Your task to perform on an android device: turn on the 24-hour format for clock Image 0: 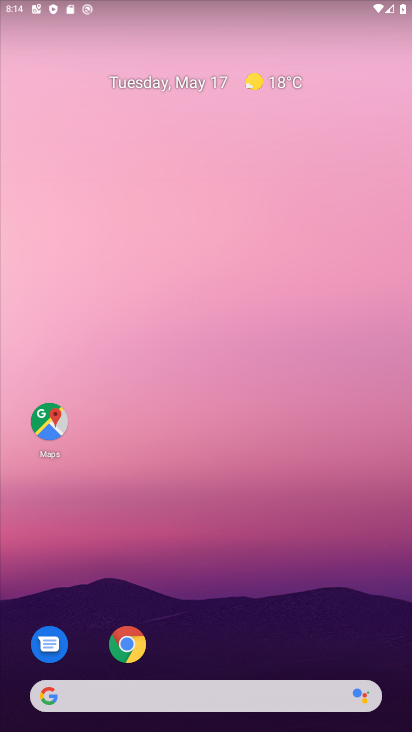
Step 0: click (289, 56)
Your task to perform on an android device: turn on the 24-hour format for clock Image 1: 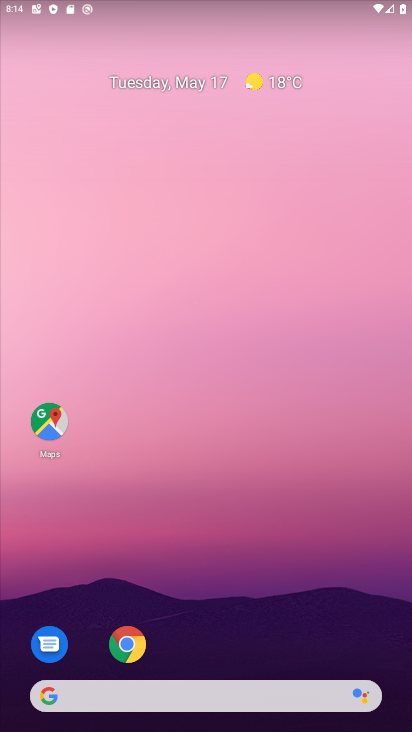
Step 1: drag from (205, 607) to (260, 22)
Your task to perform on an android device: turn on the 24-hour format for clock Image 2: 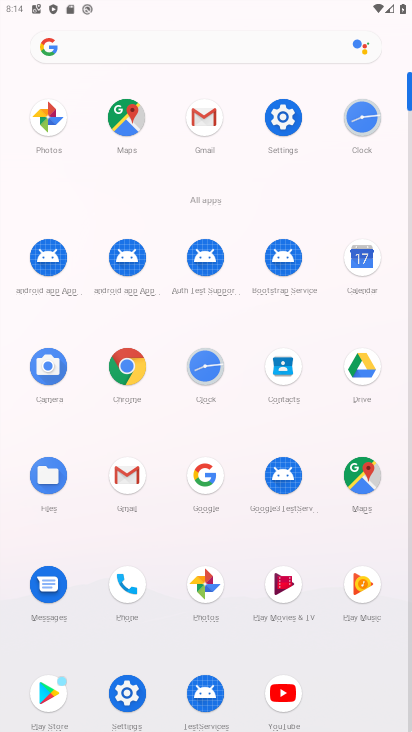
Step 2: click (209, 371)
Your task to perform on an android device: turn on the 24-hour format for clock Image 3: 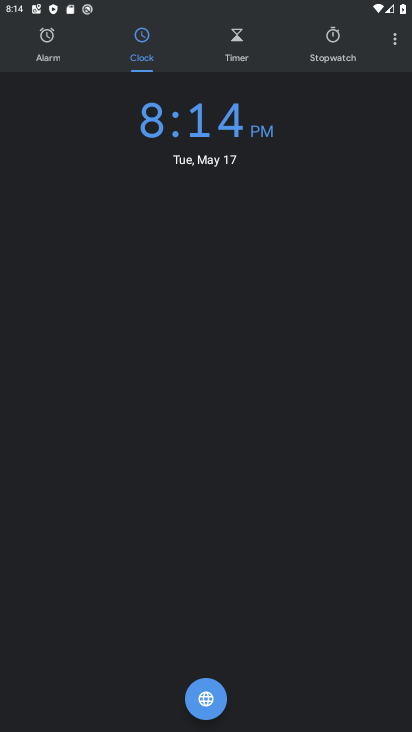
Step 3: click (395, 37)
Your task to perform on an android device: turn on the 24-hour format for clock Image 4: 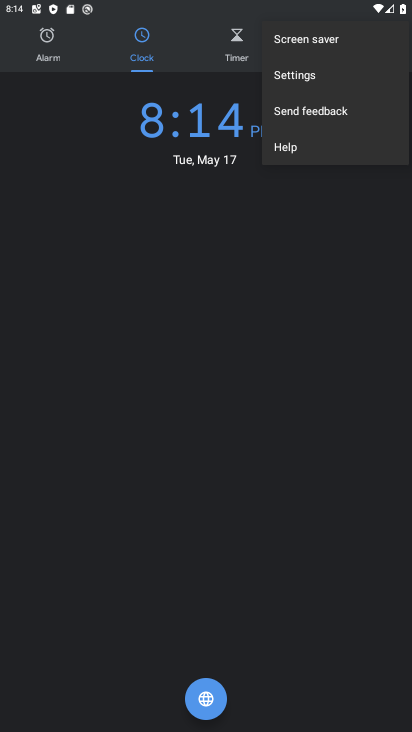
Step 4: click (288, 102)
Your task to perform on an android device: turn on the 24-hour format for clock Image 5: 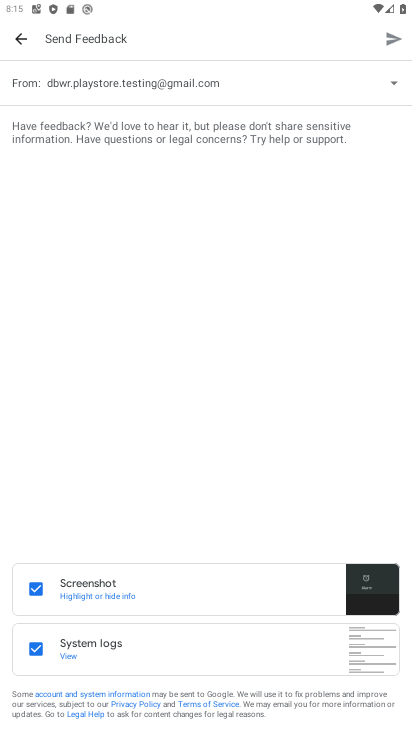
Step 5: click (20, 34)
Your task to perform on an android device: turn on the 24-hour format for clock Image 6: 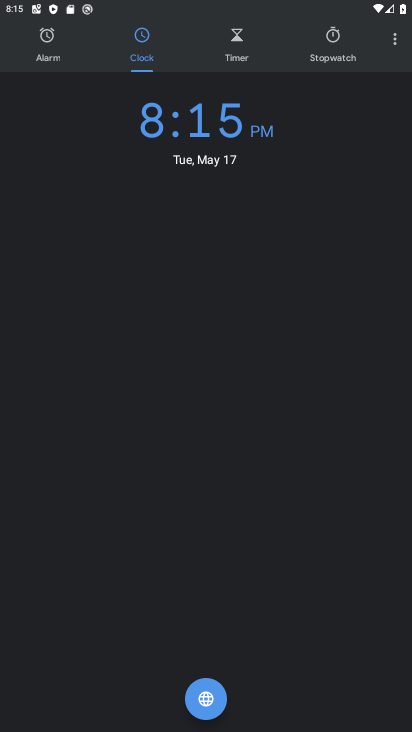
Step 6: click (392, 35)
Your task to perform on an android device: turn on the 24-hour format for clock Image 7: 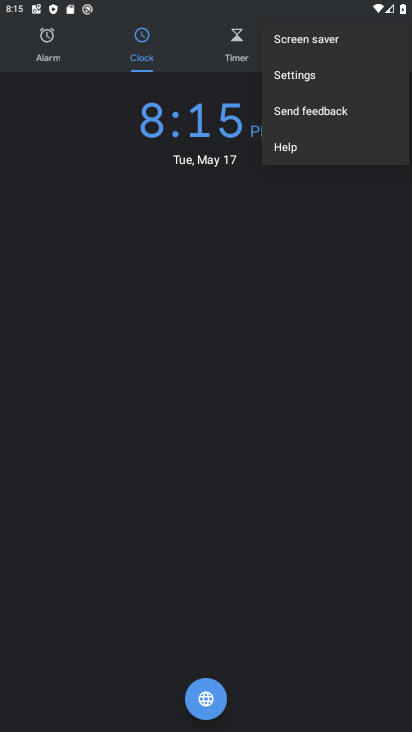
Step 7: click (300, 79)
Your task to perform on an android device: turn on the 24-hour format for clock Image 8: 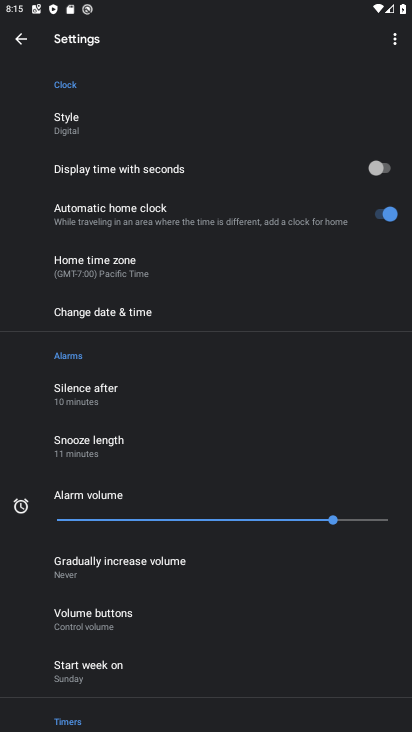
Step 8: click (122, 320)
Your task to perform on an android device: turn on the 24-hour format for clock Image 9: 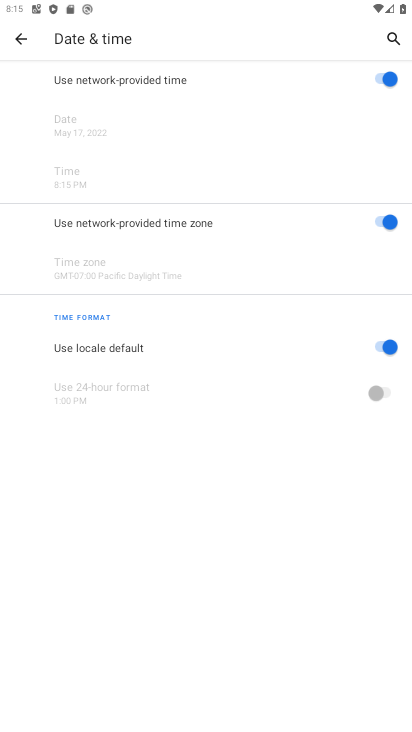
Step 9: click (383, 343)
Your task to perform on an android device: turn on the 24-hour format for clock Image 10: 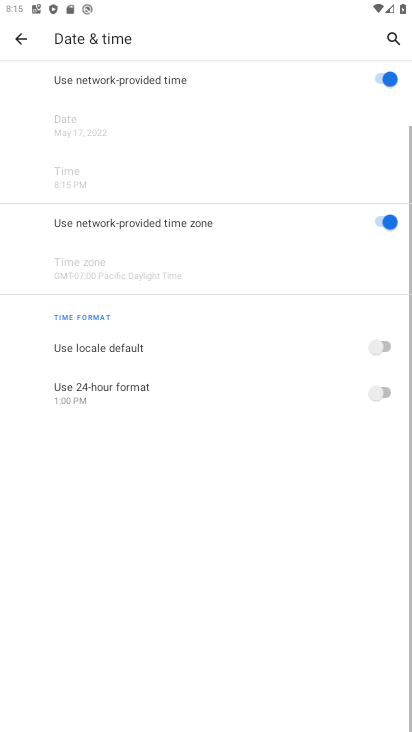
Step 10: click (381, 385)
Your task to perform on an android device: turn on the 24-hour format for clock Image 11: 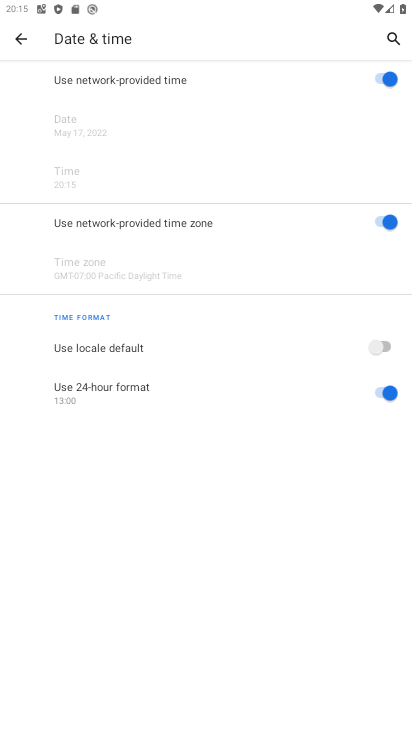
Step 11: task complete